Your task to perform on an android device: turn off location Image 0: 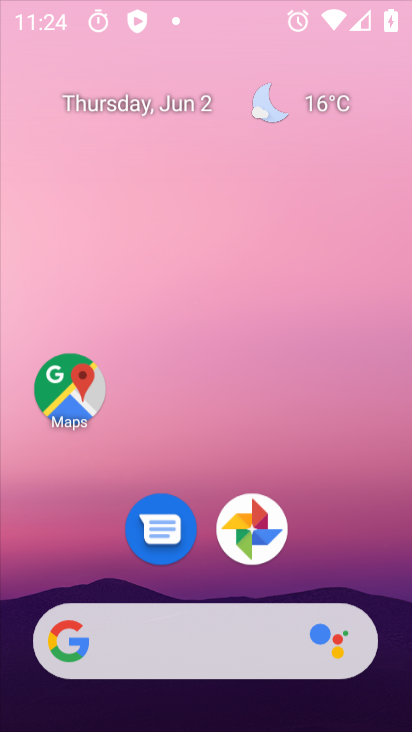
Step 0: click (142, 8)
Your task to perform on an android device: turn off location Image 1: 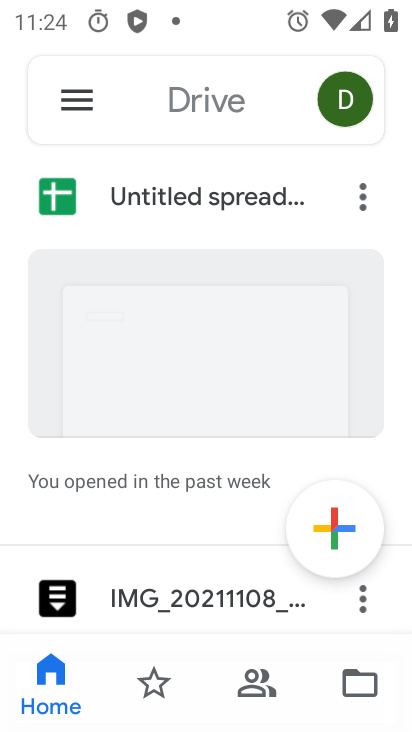
Step 1: press back button
Your task to perform on an android device: turn off location Image 2: 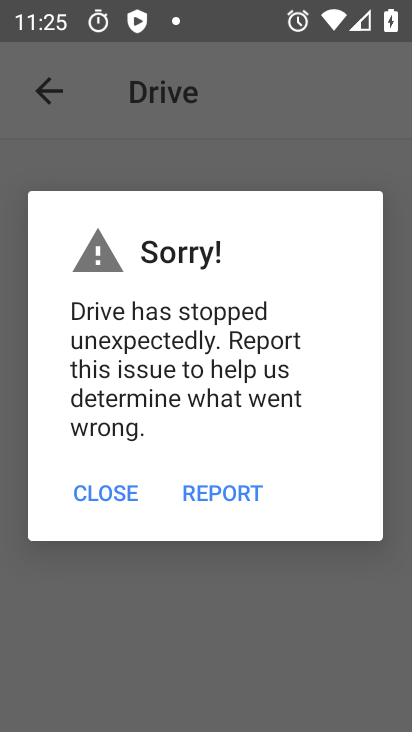
Step 2: press home button
Your task to perform on an android device: turn off location Image 3: 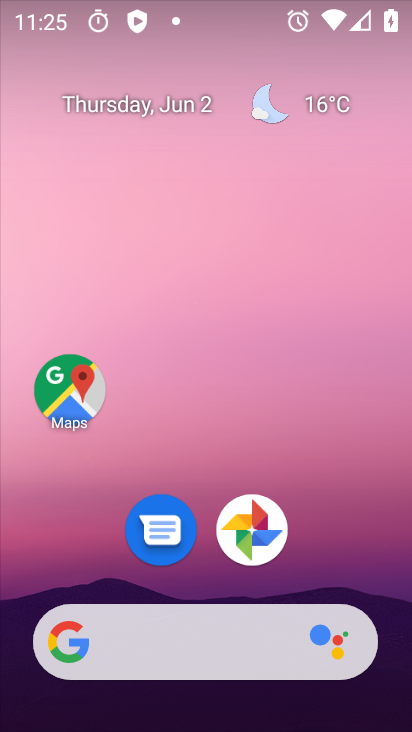
Step 3: drag from (291, 667) to (207, 71)
Your task to perform on an android device: turn off location Image 4: 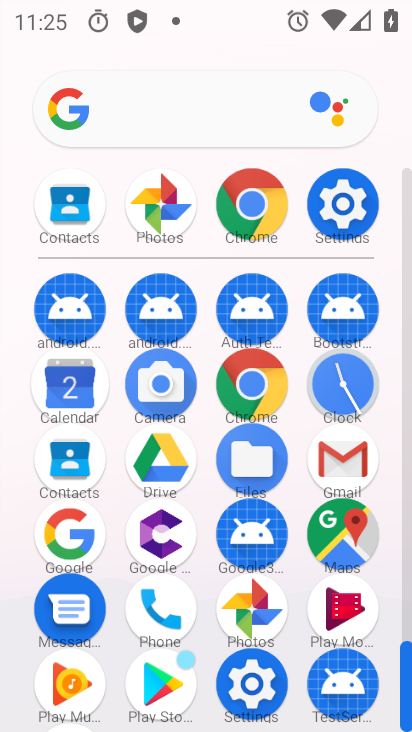
Step 4: click (341, 209)
Your task to perform on an android device: turn off location Image 5: 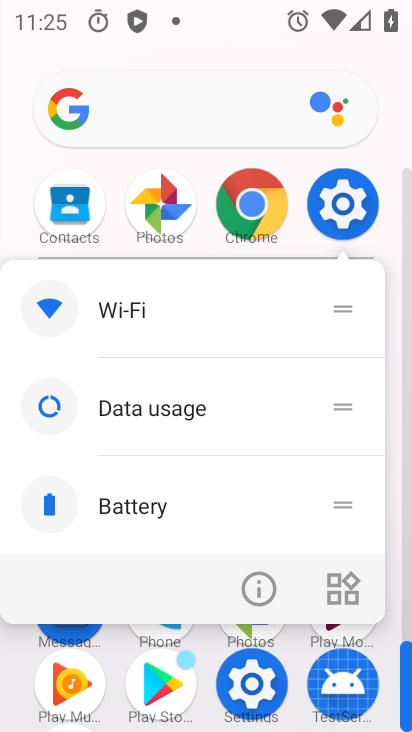
Step 5: click (341, 209)
Your task to perform on an android device: turn off location Image 6: 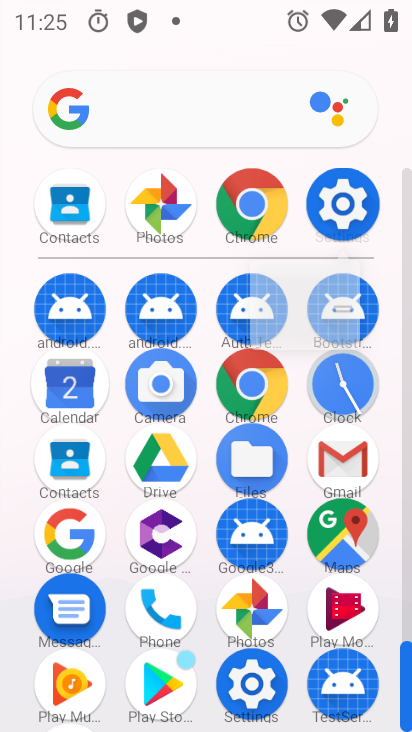
Step 6: click (341, 209)
Your task to perform on an android device: turn off location Image 7: 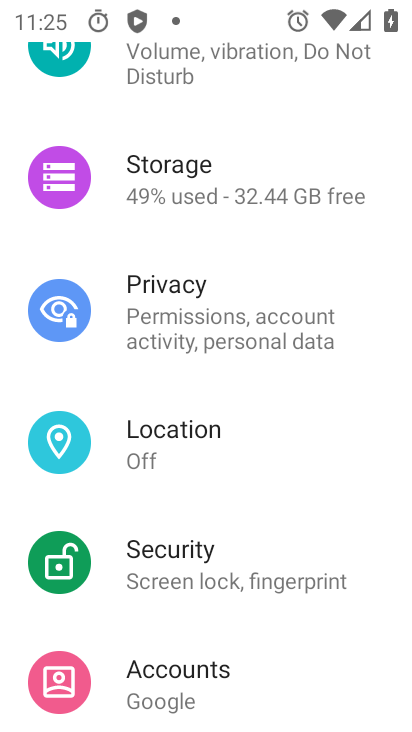
Step 7: click (341, 209)
Your task to perform on an android device: turn off location Image 8: 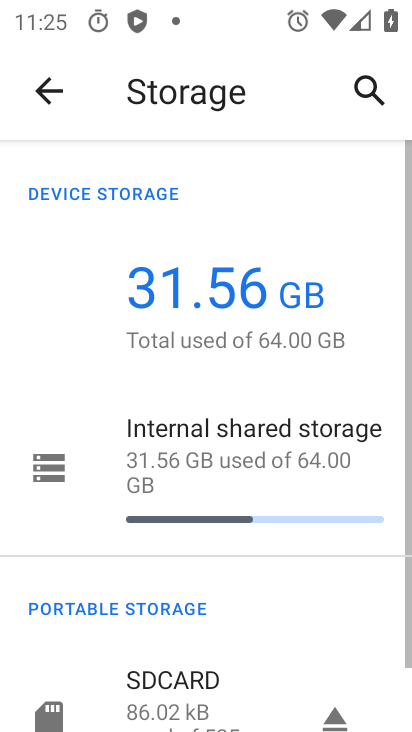
Step 8: click (31, 98)
Your task to perform on an android device: turn off location Image 9: 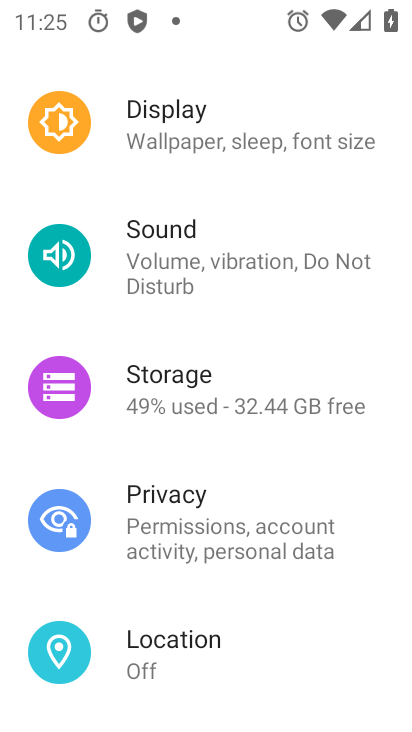
Step 9: click (171, 632)
Your task to perform on an android device: turn off location Image 10: 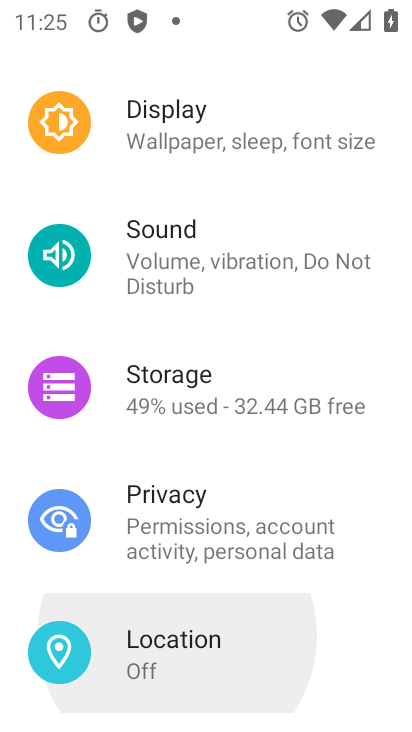
Step 10: click (170, 632)
Your task to perform on an android device: turn off location Image 11: 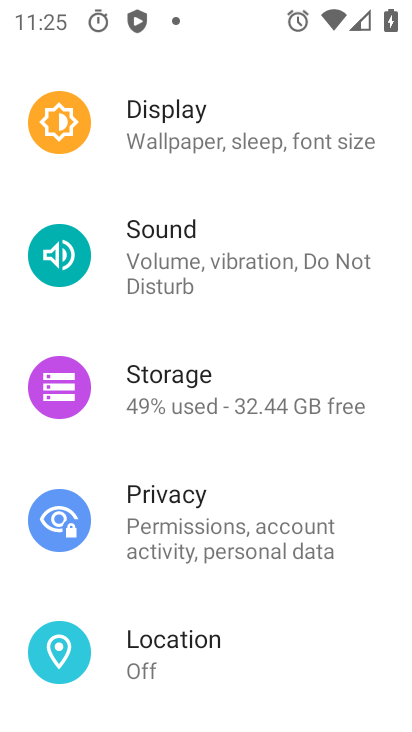
Step 11: click (170, 632)
Your task to perform on an android device: turn off location Image 12: 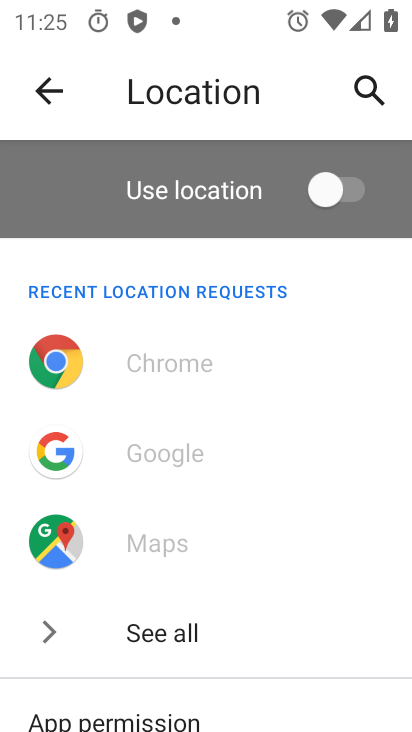
Step 12: task complete